Your task to perform on an android device: Open Google Chrome Image 0: 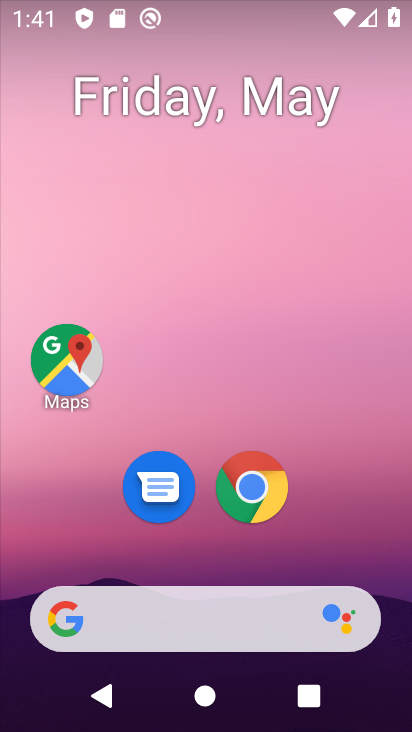
Step 0: click (268, 494)
Your task to perform on an android device: Open Google Chrome Image 1: 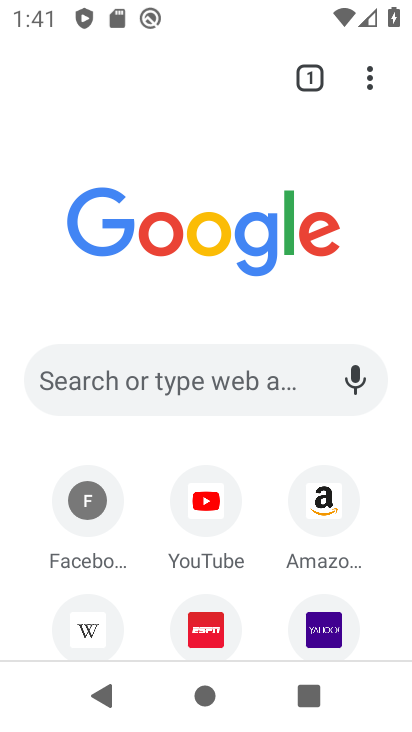
Step 1: task complete